Your task to perform on an android device: Open Google Maps and go to "Timeline" Image 0: 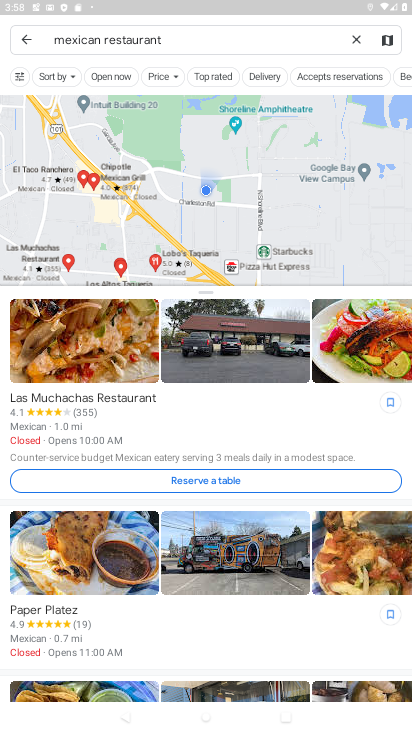
Step 0: click (19, 35)
Your task to perform on an android device: Open Google Maps and go to "Timeline" Image 1: 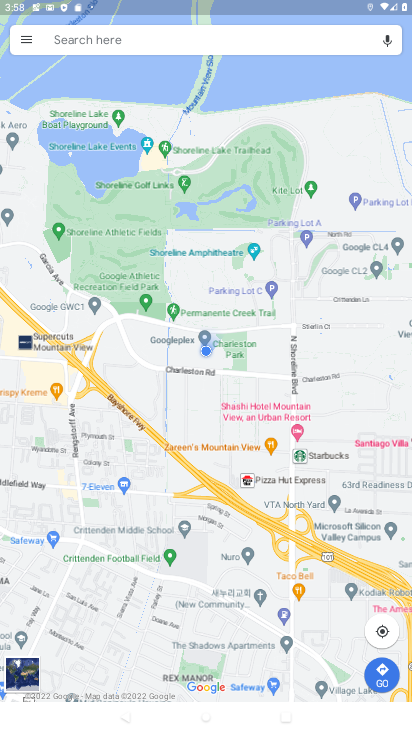
Step 1: click (20, 35)
Your task to perform on an android device: Open Google Maps and go to "Timeline" Image 2: 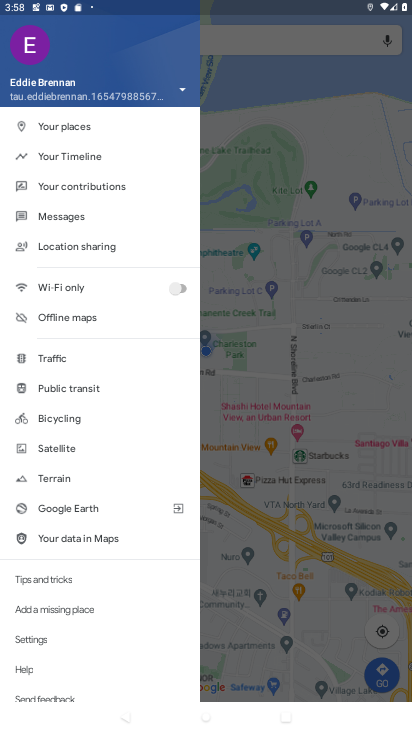
Step 2: click (76, 154)
Your task to perform on an android device: Open Google Maps and go to "Timeline" Image 3: 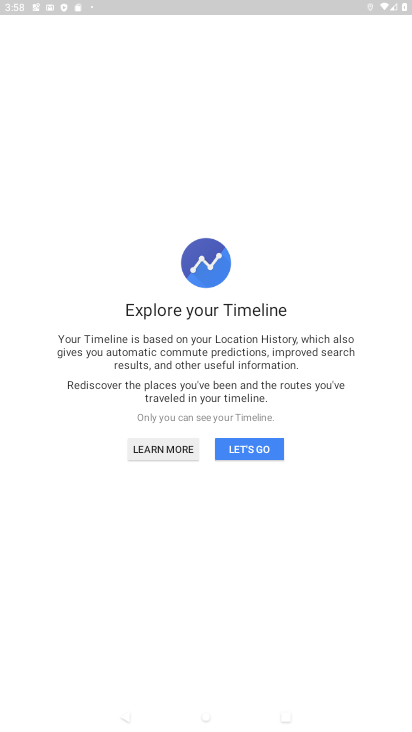
Step 3: click (270, 449)
Your task to perform on an android device: Open Google Maps and go to "Timeline" Image 4: 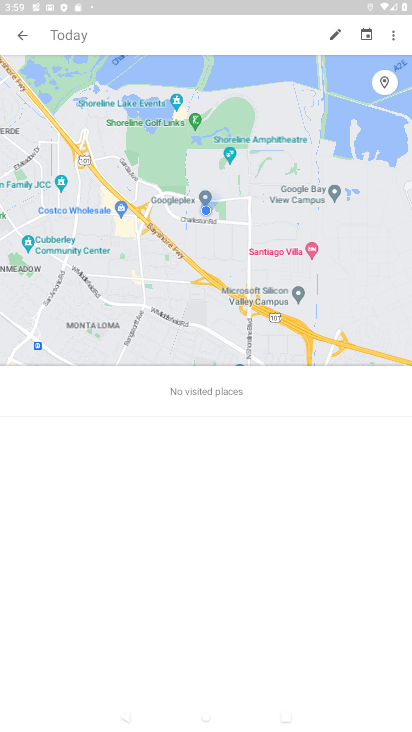
Step 4: task complete